Your task to perform on an android device: Open Android settings Image 0: 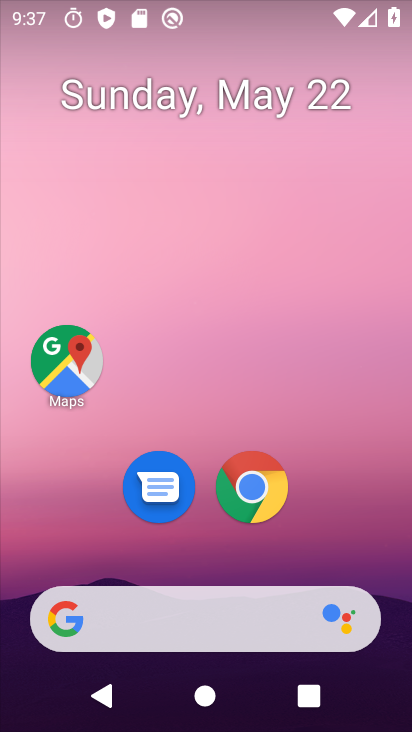
Step 0: drag from (210, 548) to (187, 116)
Your task to perform on an android device: Open Android settings Image 1: 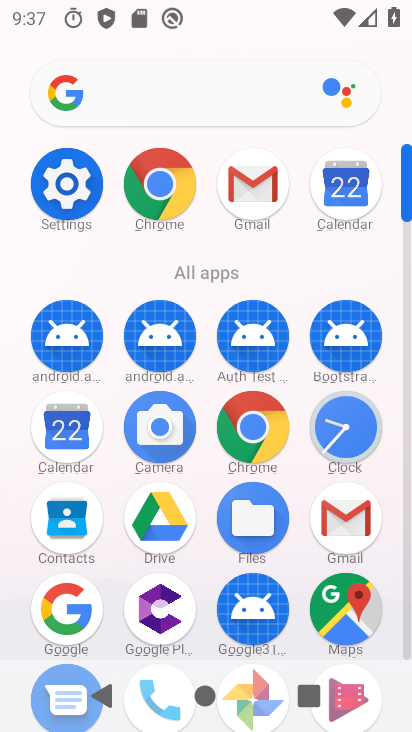
Step 1: click (34, 185)
Your task to perform on an android device: Open Android settings Image 2: 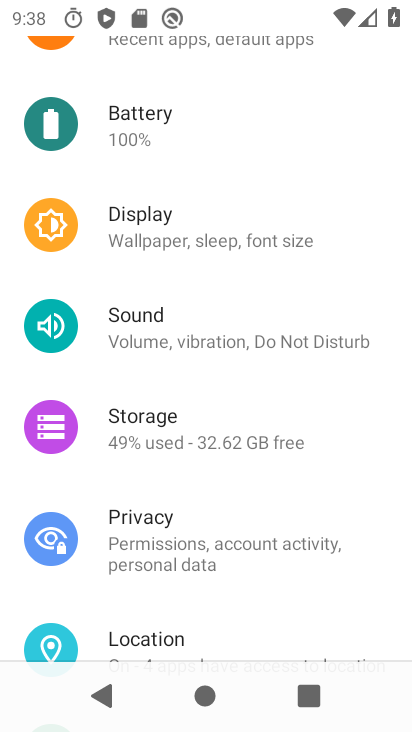
Step 2: task complete